Your task to perform on an android device: toggle translation in the chrome app Image 0: 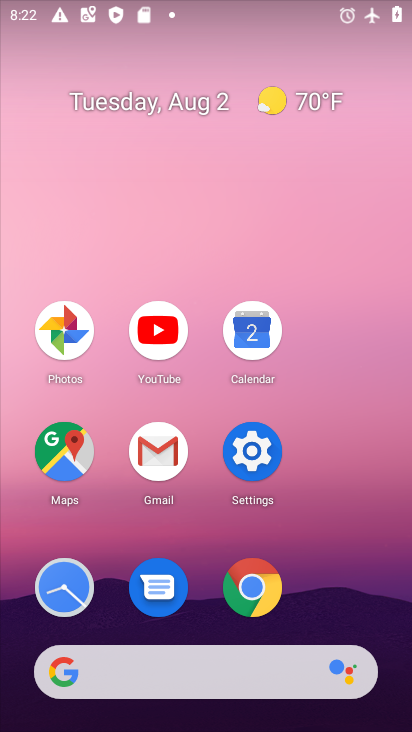
Step 0: click (248, 591)
Your task to perform on an android device: toggle translation in the chrome app Image 1: 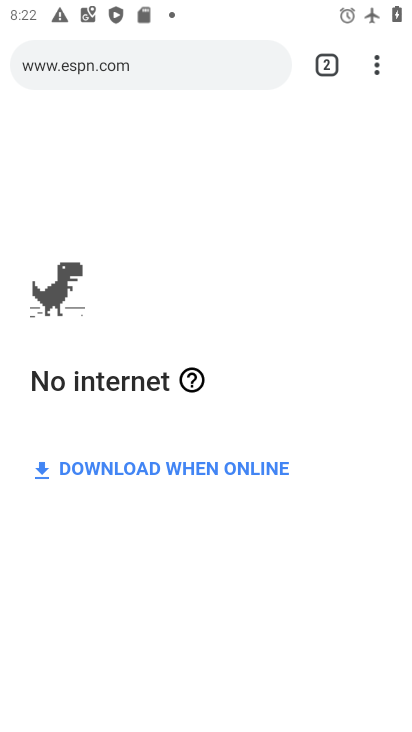
Step 1: click (380, 61)
Your task to perform on an android device: toggle translation in the chrome app Image 2: 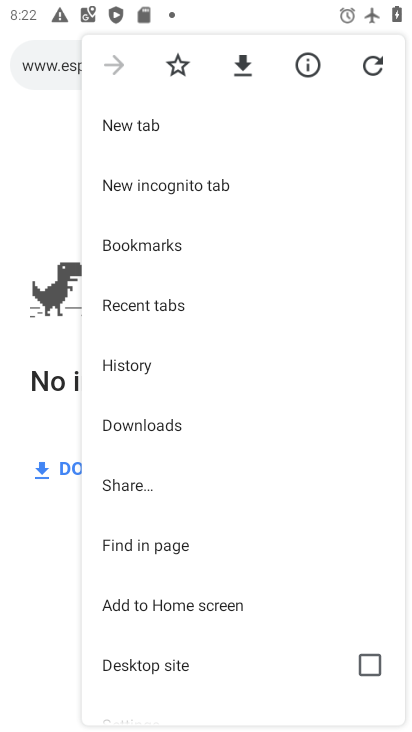
Step 2: drag from (251, 554) to (243, 204)
Your task to perform on an android device: toggle translation in the chrome app Image 3: 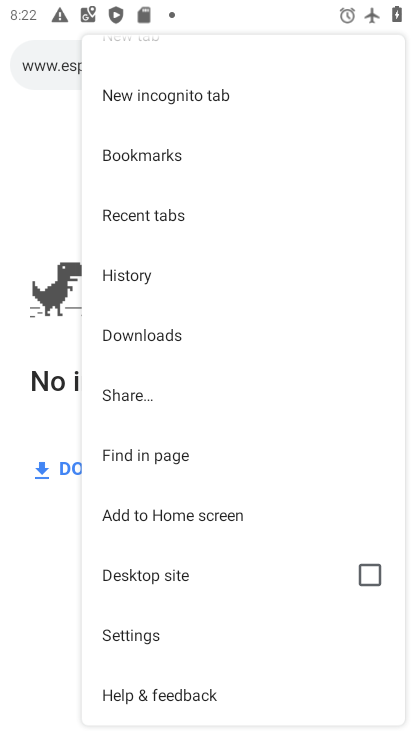
Step 3: click (142, 631)
Your task to perform on an android device: toggle translation in the chrome app Image 4: 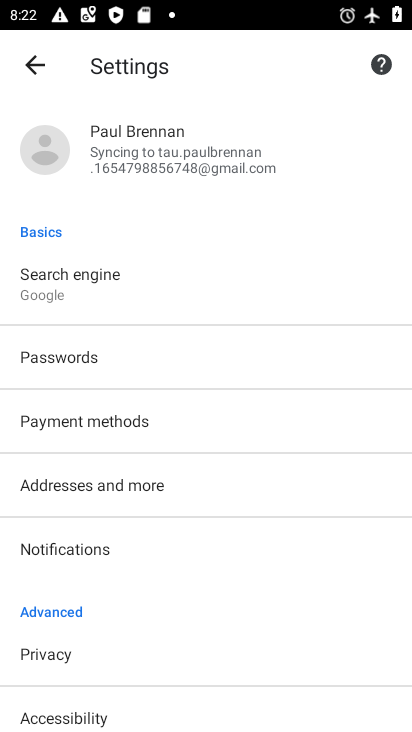
Step 4: drag from (189, 615) to (194, 52)
Your task to perform on an android device: toggle translation in the chrome app Image 5: 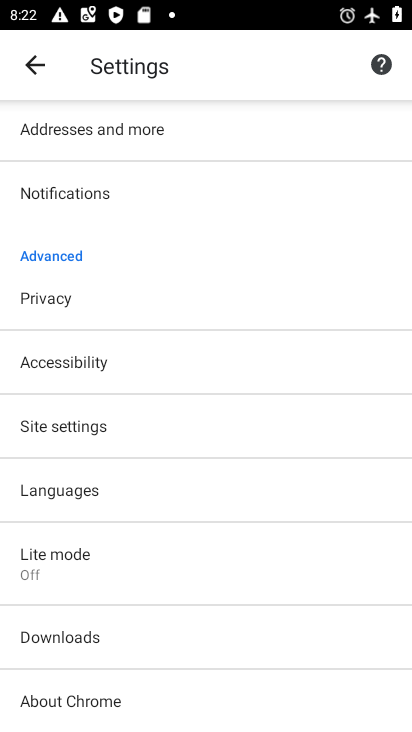
Step 5: click (72, 492)
Your task to perform on an android device: toggle translation in the chrome app Image 6: 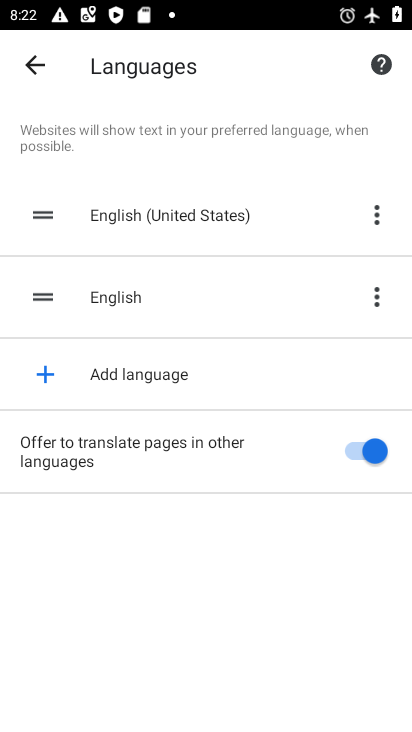
Step 6: click (356, 452)
Your task to perform on an android device: toggle translation in the chrome app Image 7: 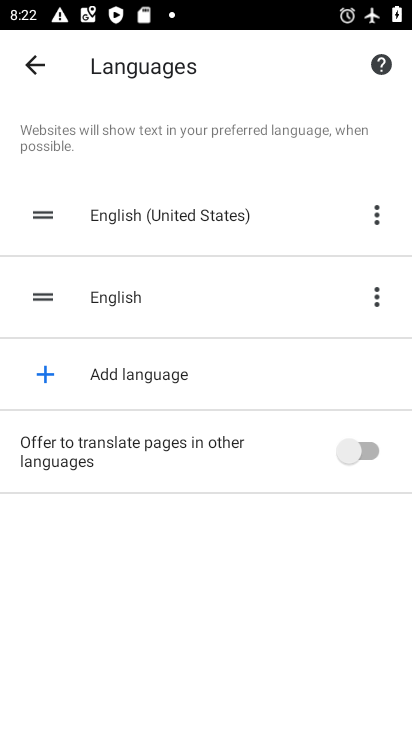
Step 7: task complete